Your task to perform on an android device: allow cookies in the chrome app Image 0: 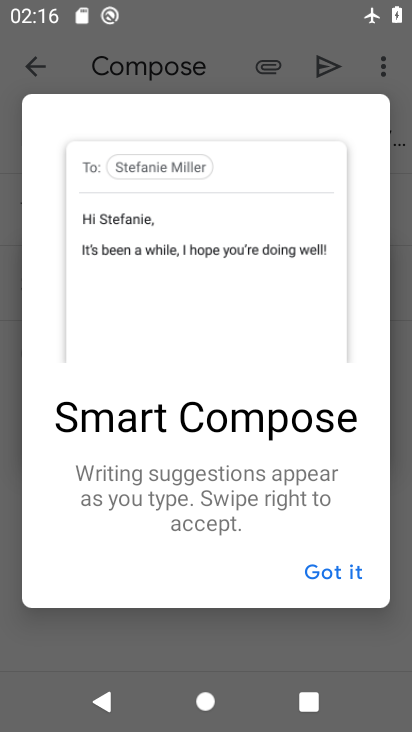
Step 0: press home button
Your task to perform on an android device: allow cookies in the chrome app Image 1: 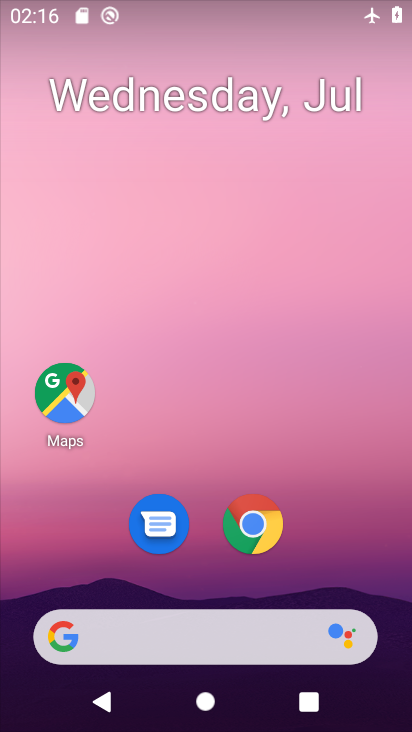
Step 1: click (270, 534)
Your task to perform on an android device: allow cookies in the chrome app Image 2: 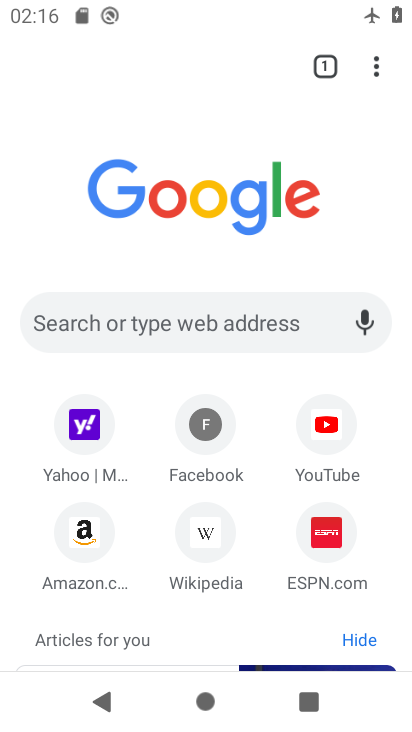
Step 2: click (376, 70)
Your task to perform on an android device: allow cookies in the chrome app Image 3: 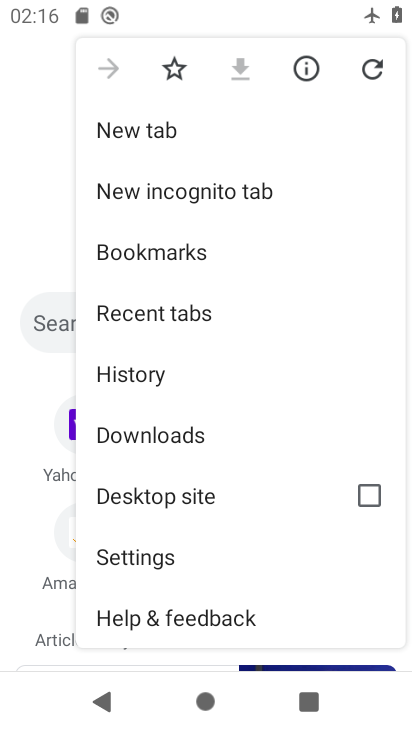
Step 3: click (182, 547)
Your task to perform on an android device: allow cookies in the chrome app Image 4: 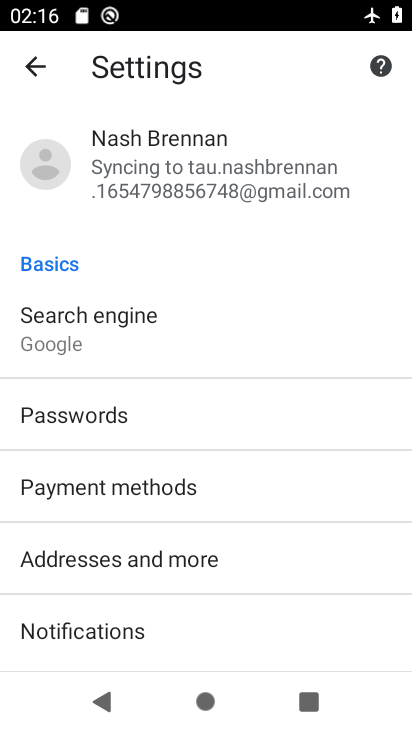
Step 4: drag from (225, 627) to (206, 286)
Your task to perform on an android device: allow cookies in the chrome app Image 5: 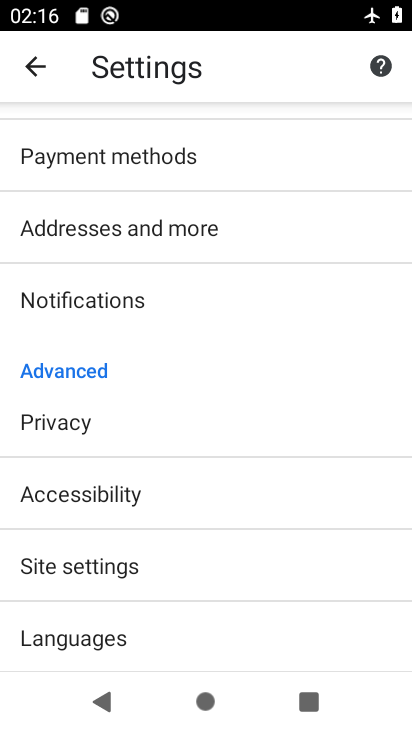
Step 5: click (115, 567)
Your task to perform on an android device: allow cookies in the chrome app Image 6: 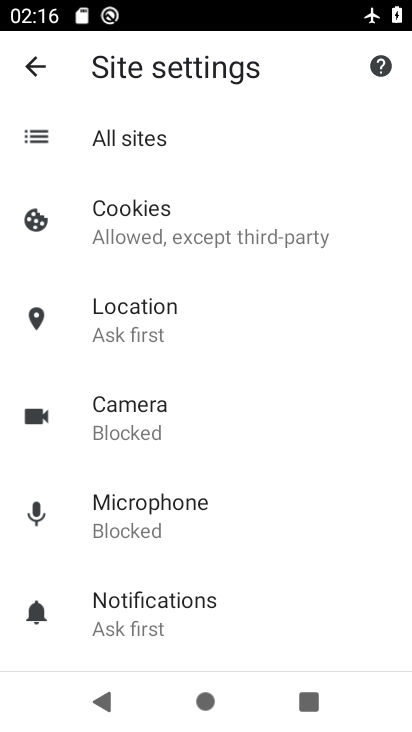
Step 6: click (225, 217)
Your task to perform on an android device: allow cookies in the chrome app Image 7: 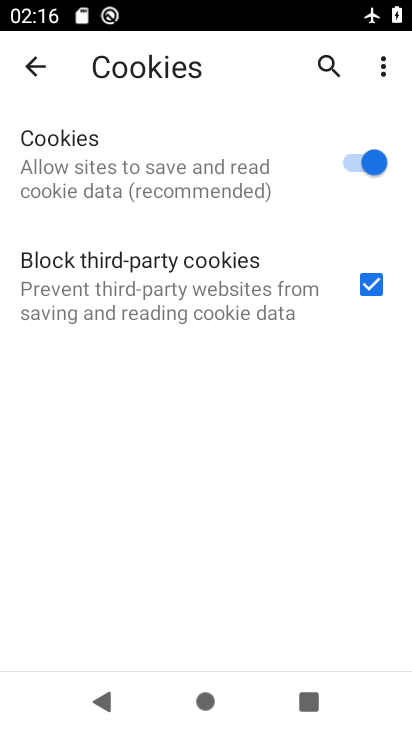
Step 7: task complete